Your task to perform on an android device: Open the calendar app, open the side menu, and click the "Day" option Image 0: 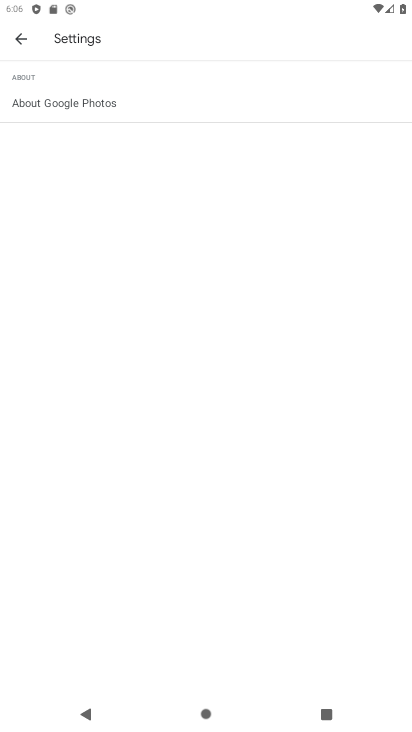
Step 0: press home button
Your task to perform on an android device: Open the calendar app, open the side menu, and click the "Day" option Image 1: 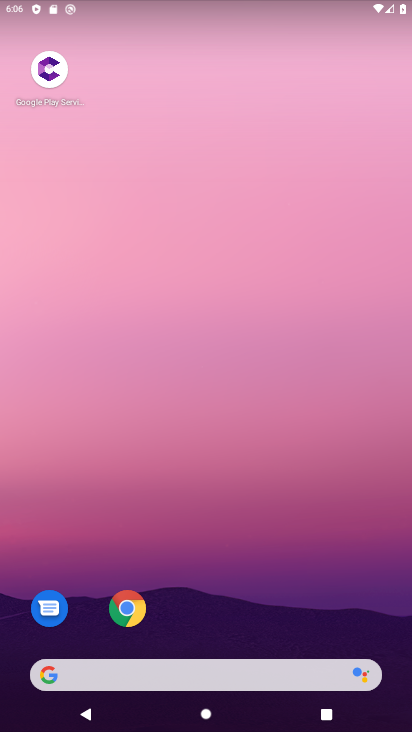
Step 1: drag from (201, 607) to (254, 88)
Your task to perform on an android device: Open the calendar app, open the side menu, and click the "Day" option Image 2: 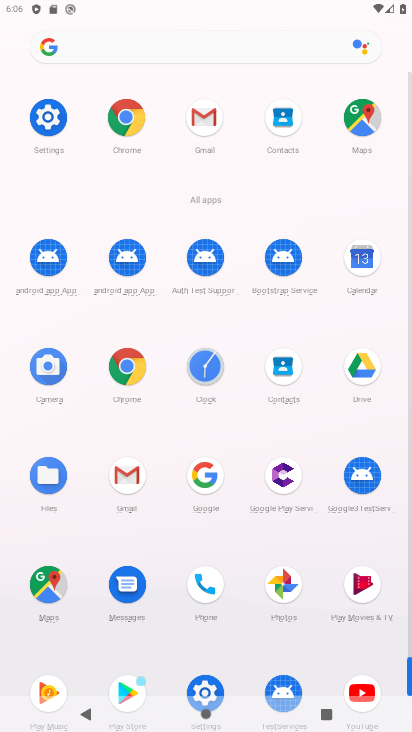
Step 2: click (360, 277)
Your task to perform on an android device: Open the calendar app, open the side menu, and click the "Day" option Image 3: 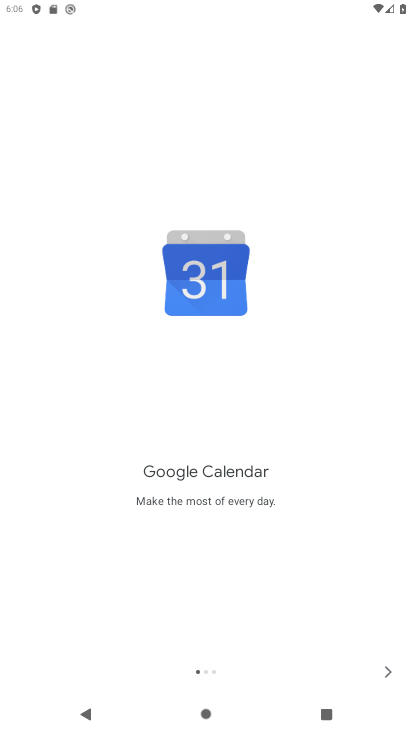
Step 3: click (385, 670)
Your task to perform on an android device: Open the calendar app, open the side menu, and click the "Day" option Image 4: 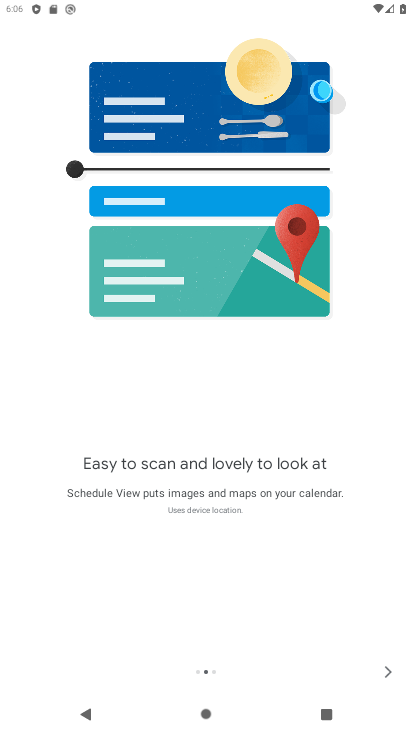
Step 4: click (386, 670)
Your task to perform on an android device: Open the calendar app, open the side menu, and click the "Day" option Image 5: 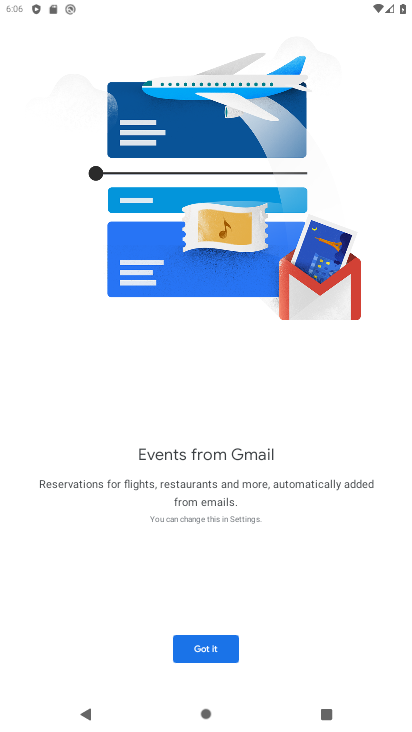
Step 5: click (231, 652)
Your task to perform on an android device: Open the calendar app, open the side menu, and click the "Day" option Image 6: 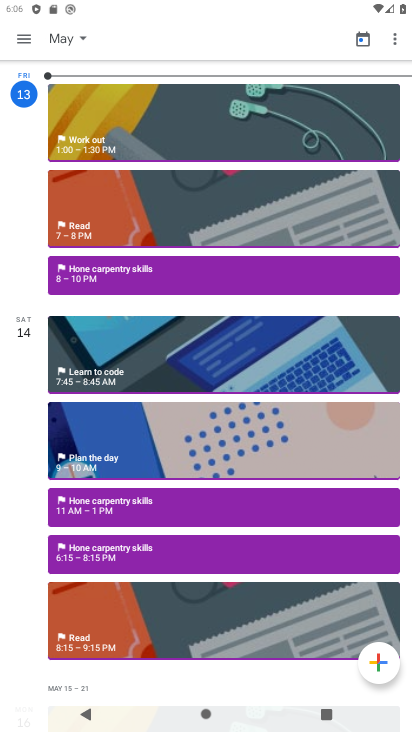
Step 6: click (16, 42)
Your task to perform on an android device: Open the calendar app, open the side menu, and click the "Day" option Image 7: 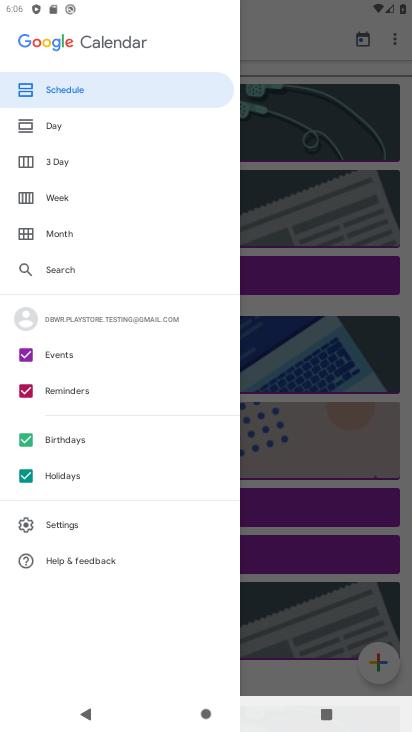
Step 7: click (61, 125)
Your task to perform on an android device: Open the calendar app, open the side menu, and click the "Day" option Image 8: 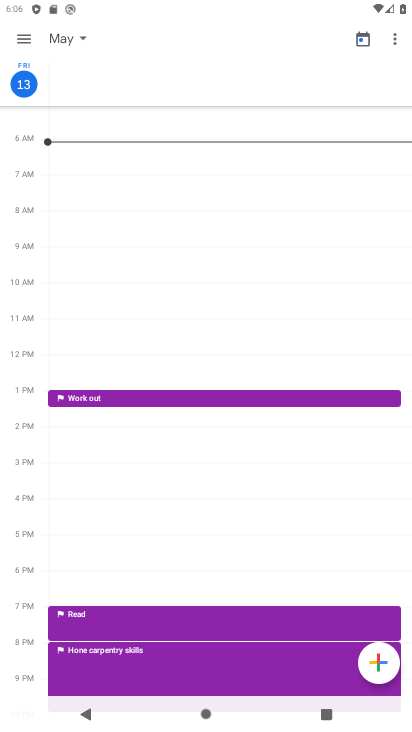
Step 8: task complete